Your task to perform on an android device: uninstall "Microsoft Authenticator" Image 0: 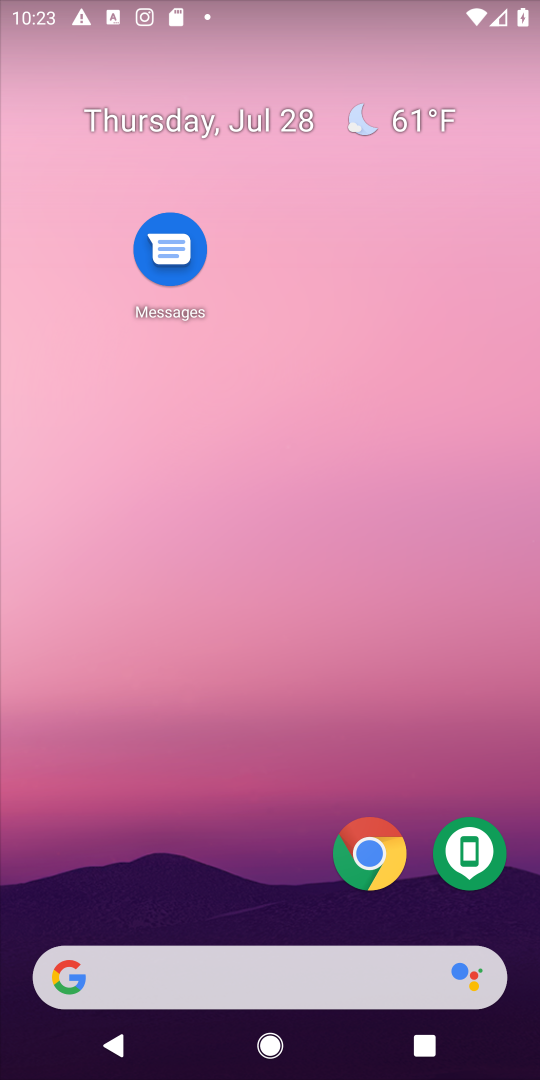
Step 0: drag from (216, 854) to (207, 140)
Your task to perform on an android device: uninstall "Microsoft Authenticator" Image 1: 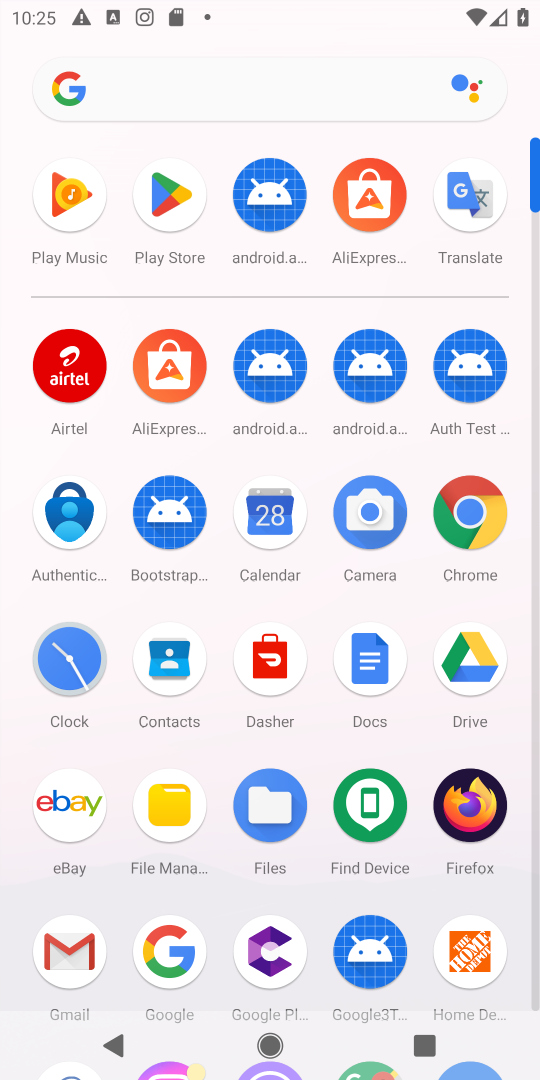
Step 1: click (164, 204)
Your task to perform on an android device: uninstall "Microsoft Authenticator" Image 2: 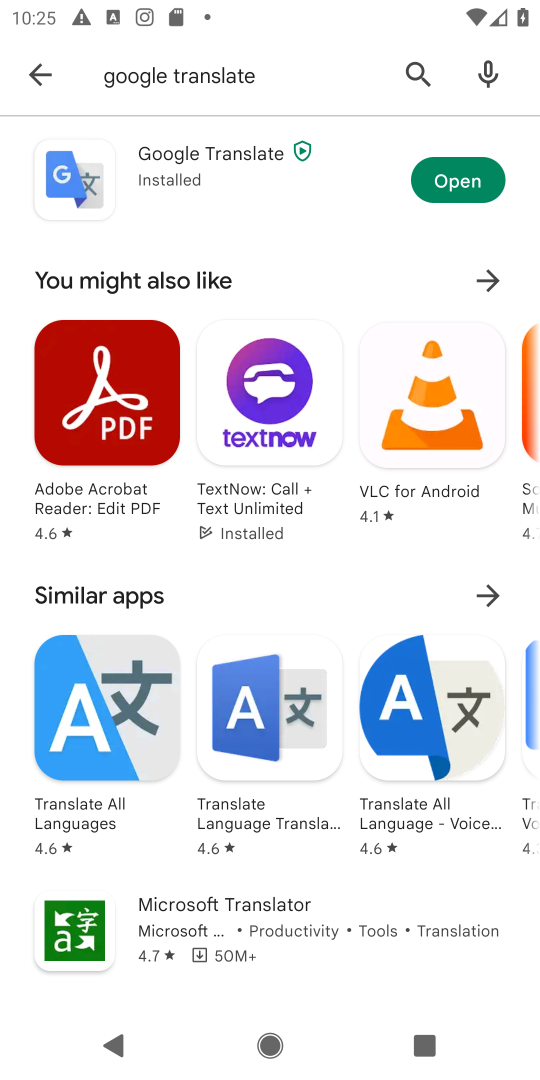
Step 2: click (39, 77)
Your task to perform on an android device: uninstall "Microsoft Authenticator" Image 3: 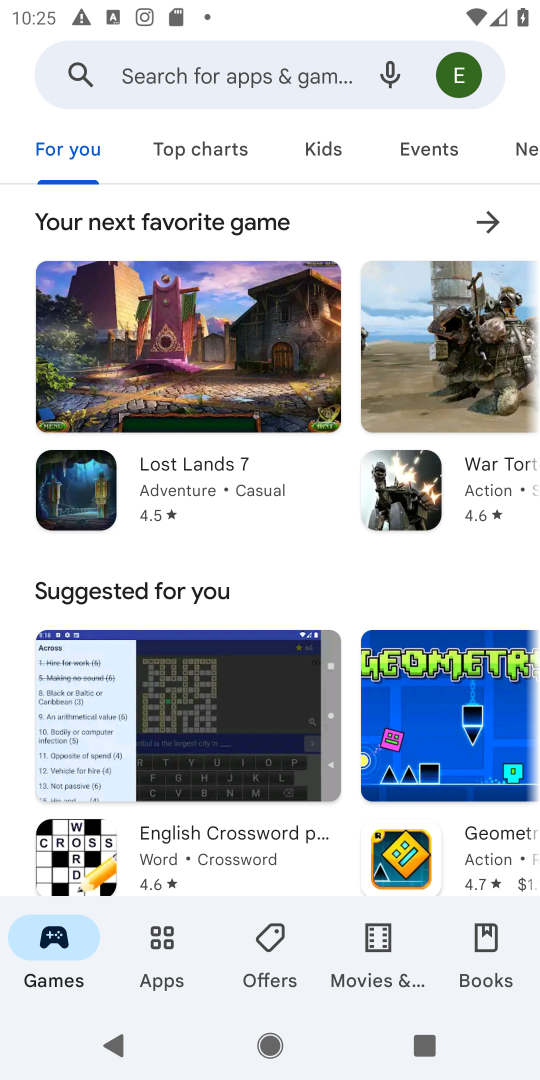
Step 3: click (179, 68)
Your task to perform on an android device: uninstall "Microsoft Authenticator" Image 4: 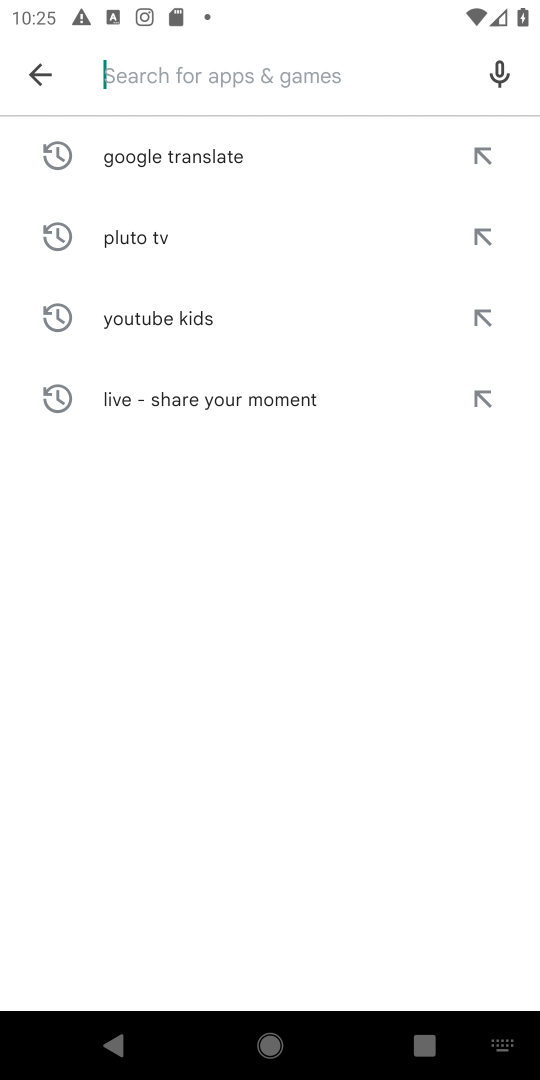
Step 4: type "Microsoft Authenticator"
Your task to perform on an android device: uninstall "Microsoft Authenticator" Image 5: 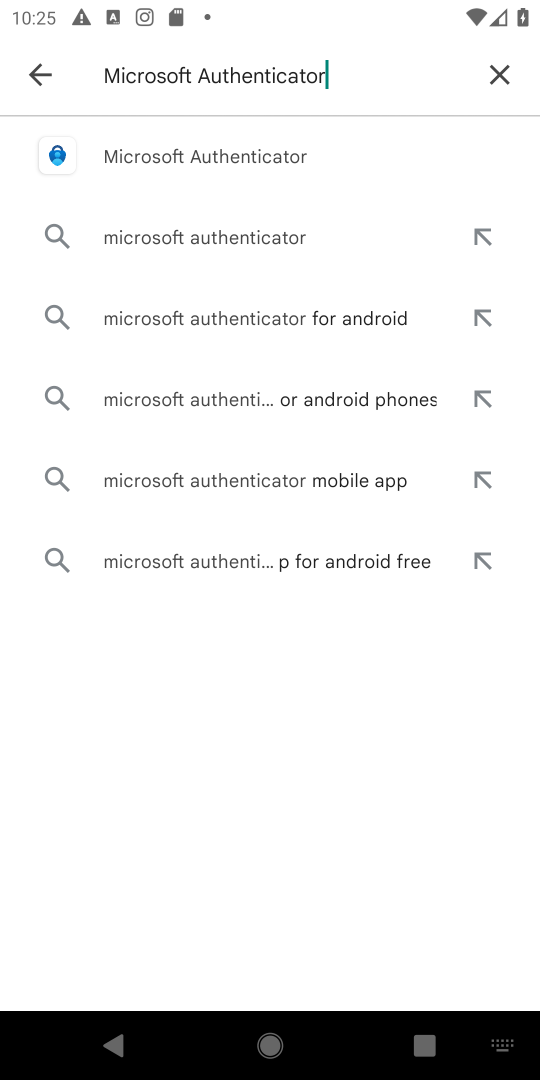
Step 5: click (165, 154)
Your task to perform on an android device: uninstall "Microsoft Authenticator" Image 6: 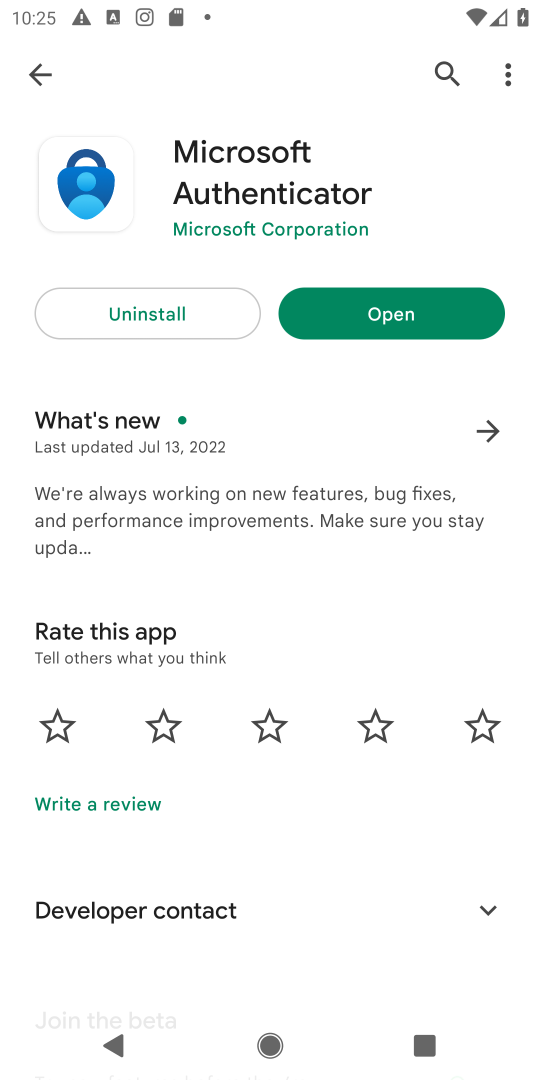
Step 6: click (145, 304)
Your task to perform on an android device: uninstall "Microsoft Authenticator" Image 7: 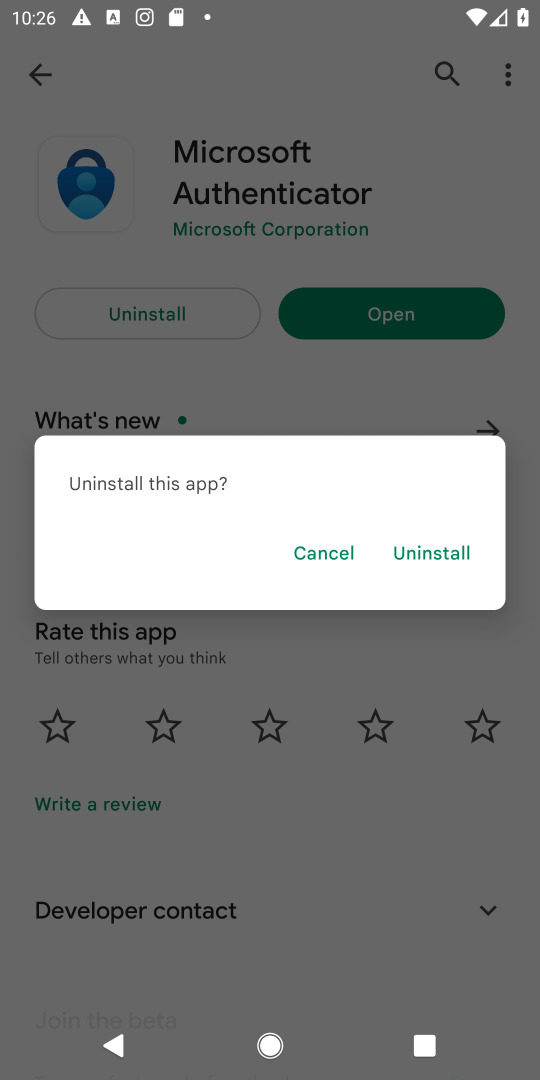
Step 7: click (433, 543)
Your task to perform on an android device: uninstall "Microsoft Authenticator" Image 8: 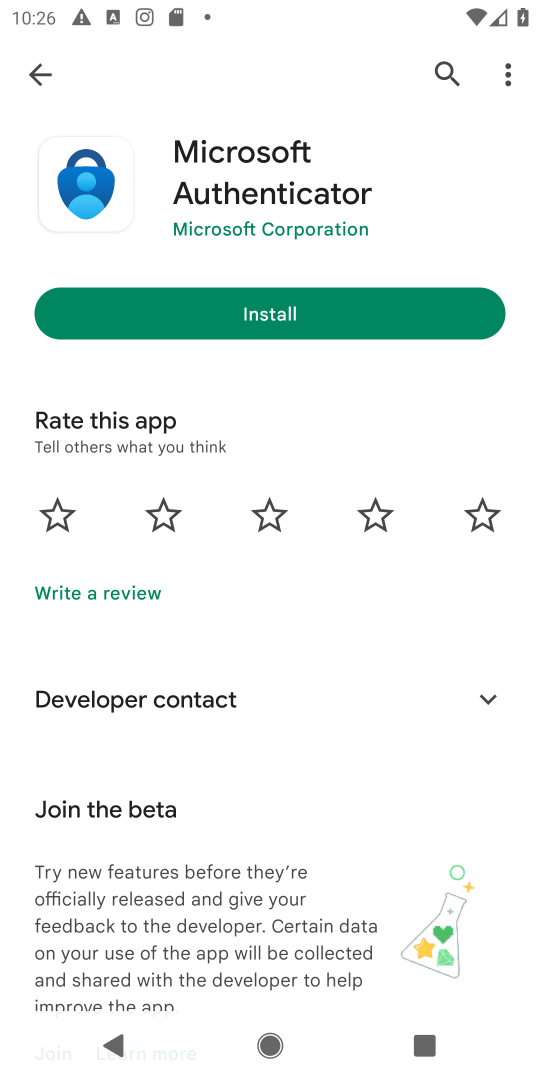
Step 8: task complete